Your task to perform on an android device: Open privacy settings Image 0: 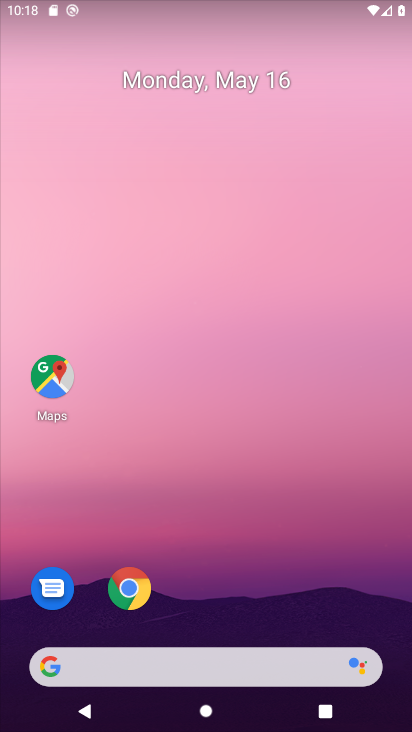
Step 0: press home button
Your task to perform on an android device: Open privacy settings Image 1: 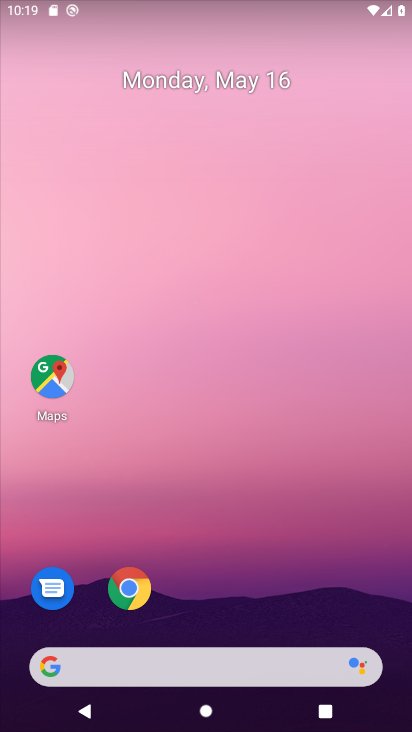
Step 1: drag from (215, 629) to (209, 90)
Your task to perform on an android device: Open privacy settings Image 2: 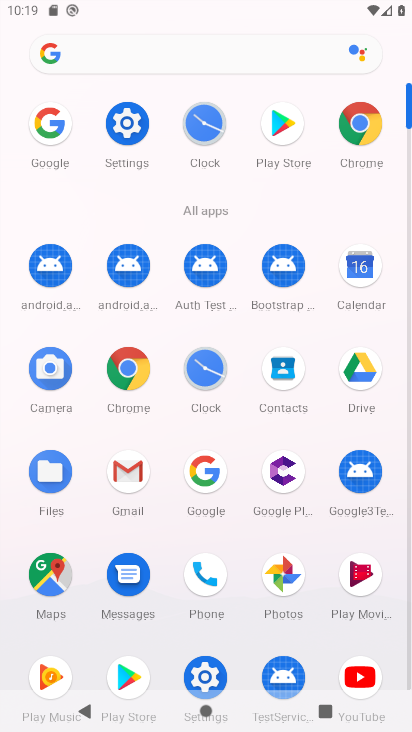
Step 2: click (115, 117)
Your task to perform on an android device: Open privacy settings Image 3: 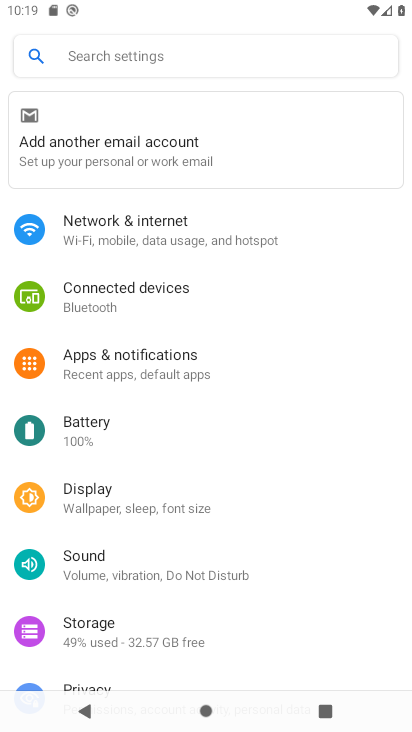
Step 3: click (125, 677)
Your task to perform on an android device: Open privacy settings Image 4: 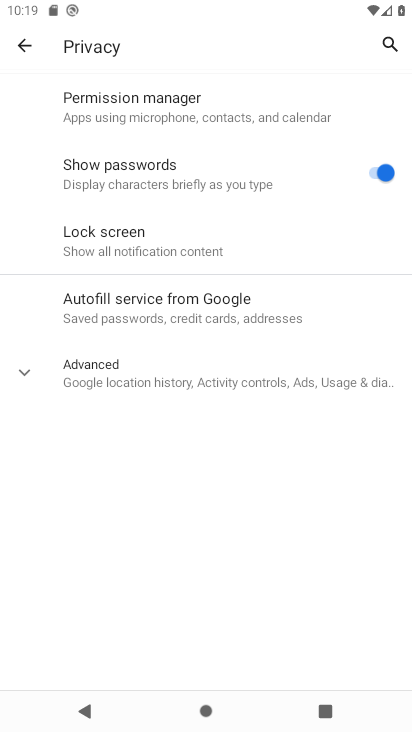
Step 4: click (29, 371)
Your task to perform on an android device: Open privacy settings Image 5: 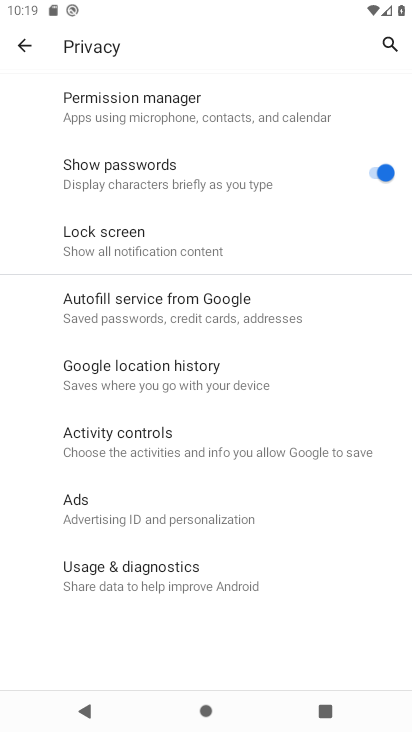
Step 5: task complete